Your task to perform on an android device: show emergency info Image 0: 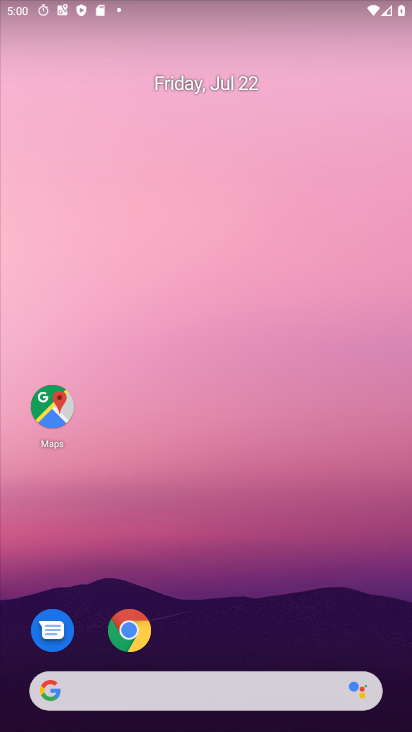
Step 0: drag from (264, 643) to (198, 15)
Your task to perform on an android device: show emergency info Image 1: 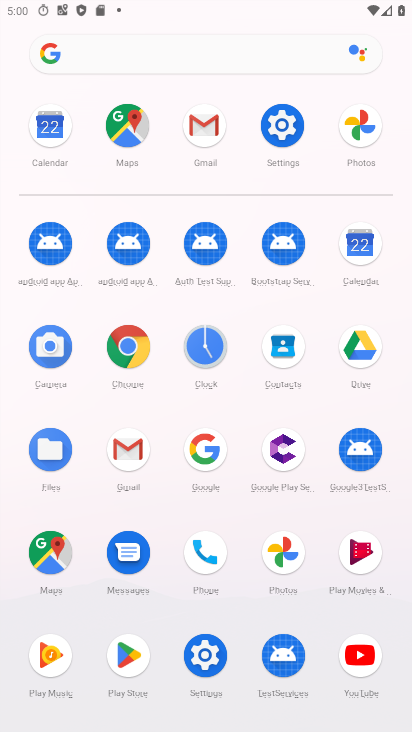
Step 1: click (284, 125)
Your task to perform on an android device: show emergency info Image 2: 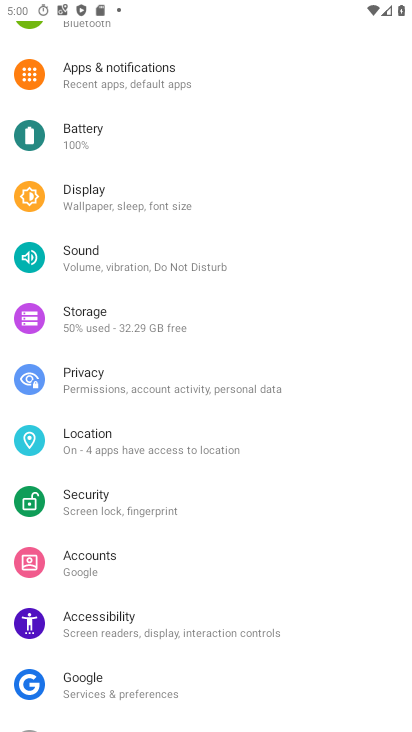
Step 2: drag from (179, 719) to (226, 226)
Your task to perform on an android device: show emergency info Image 3: 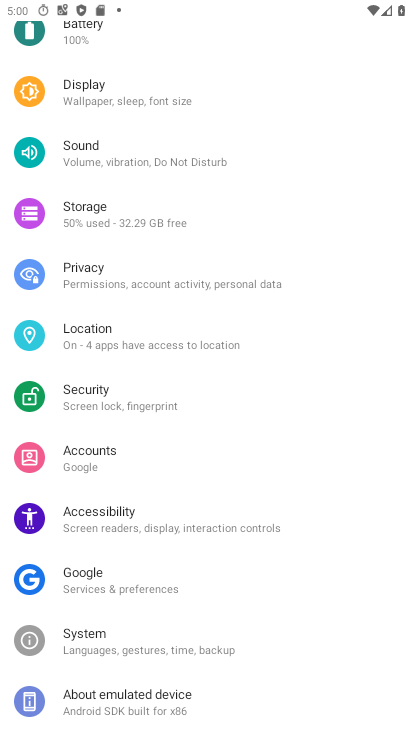
Step 3: click (214, 704)
Your task to perform on an android device: show emergency info Image 4: 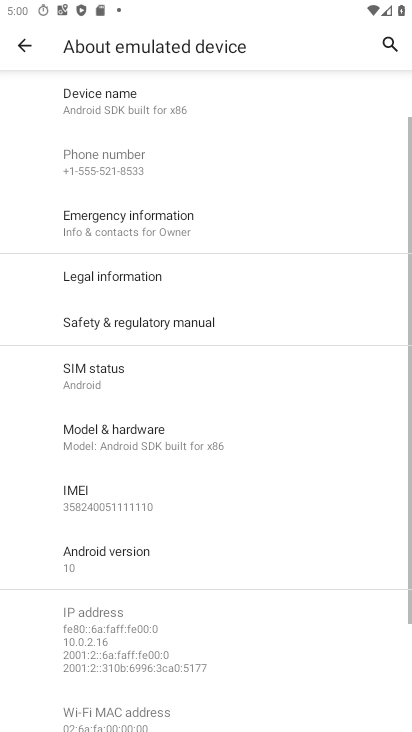
Step 4: click (121, 216)
Your task to perform on an android device: show emergency info Image 5: 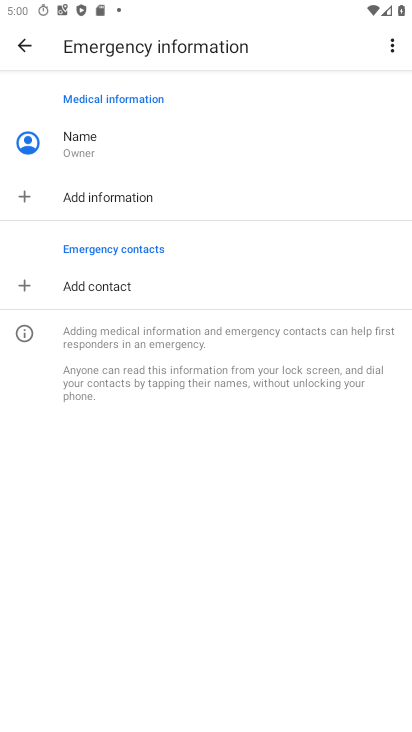
Step 5: task complete